Your task to perform on an android device: Search for seafood restaurants on Google Maps Image 0: 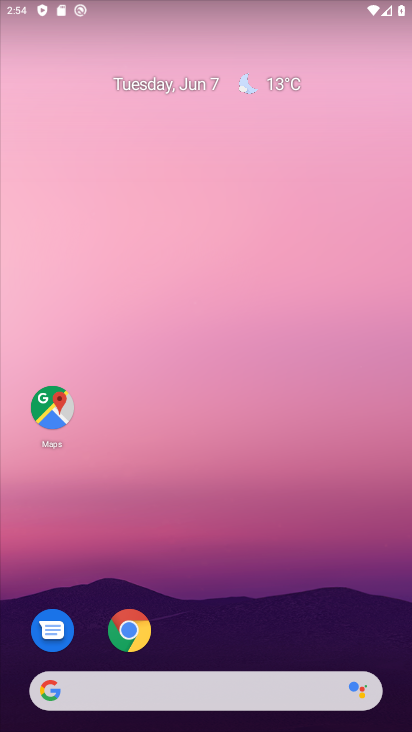
Step 0: click (63, 405)
Your task to perform on an android device: Search for seafood restaurants on Google Maps Image 1: 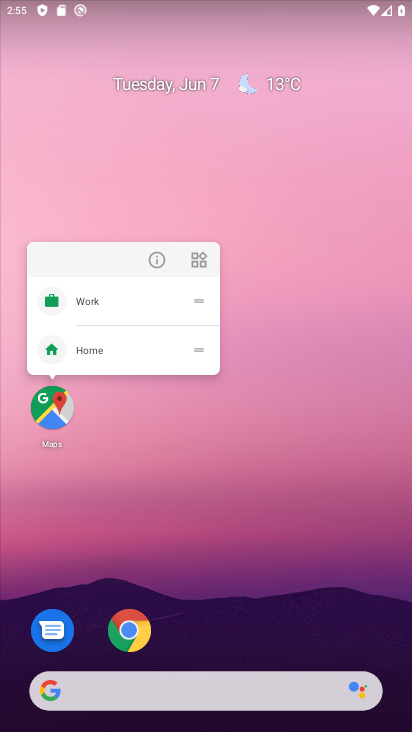
Step 1: click (58, 411)
Your task to perform on an android device: Search for seafood restaurants on Google Maps Image 2: 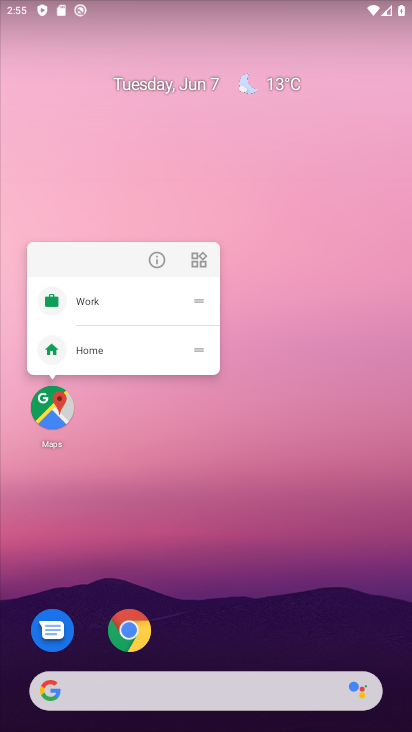
Step 2: click (55, 413)
Your task to perform on an android device: Search for seafood restaurants on Google Maps Image 3: 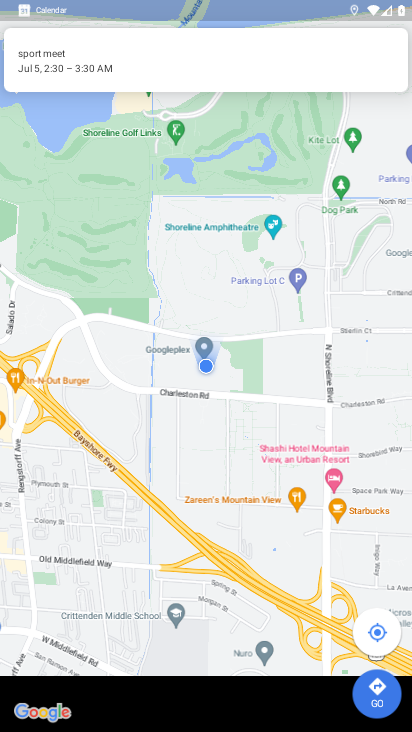
Step 3: drag from (169, 91) to (233, 0)
Your task to perform on an android device: Search for seafood restaurants on Google Maps Image 4: 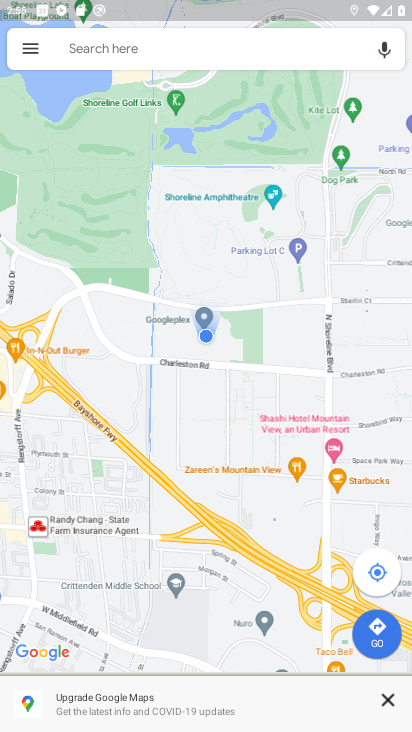
Step 4: click (178, 60)
Your task to perform on an android device: Search for seafood restaurants on Google Maps Image 5: 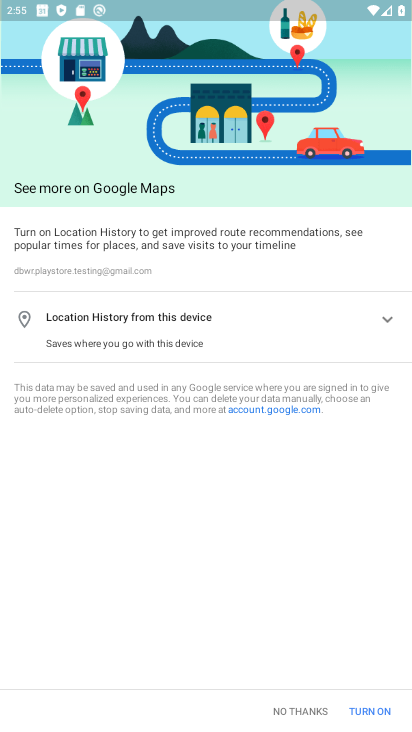
Step 5: click (308, 718)
Your task to perform on an android device: Search for seafood restaurants on Google Maps Image 6: 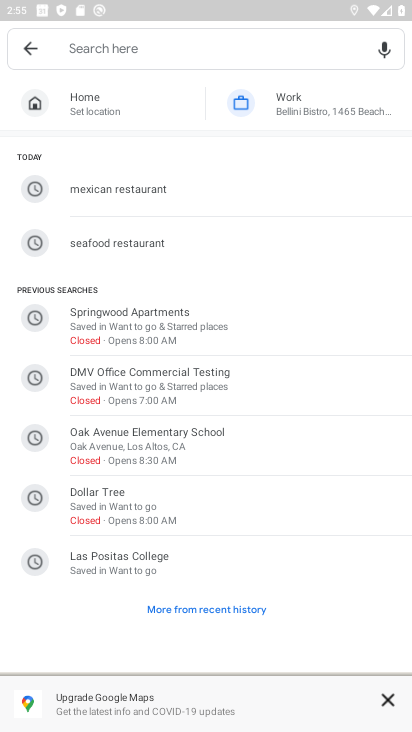
Step 6: click (382, 697)
Your task to perform on an android device: Search for seafood restaurants on Google Maps Image 7: 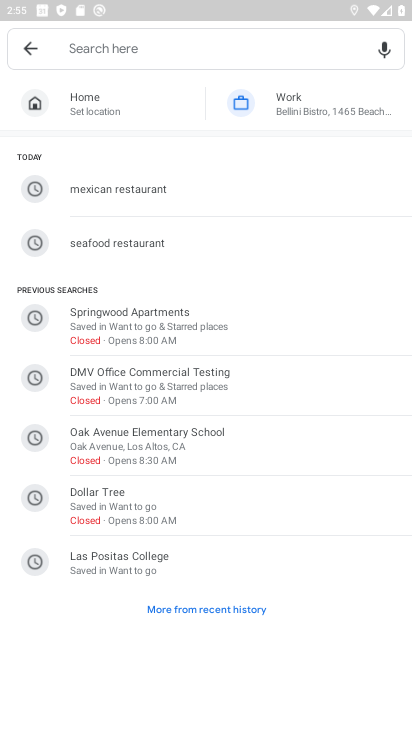
Step 7: type "seafood restaurants"
Your task to perform on an android device: Search for seafood restaurants on Google Maps Image 8: 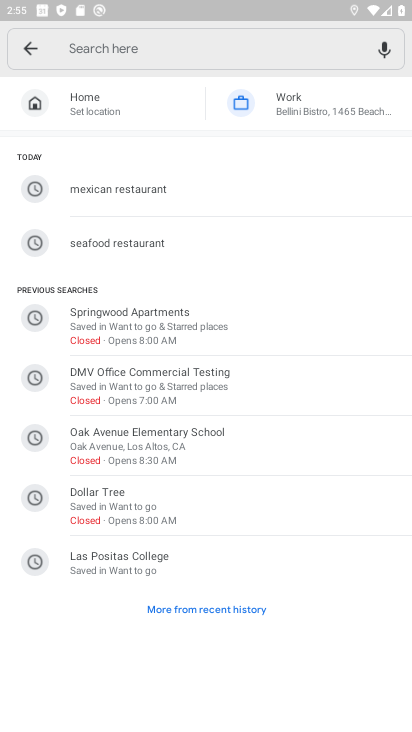
Step 8: click (195, 49)
Your task to perform on an android device: Search for seafood restaurants on Google Maps Image 9: 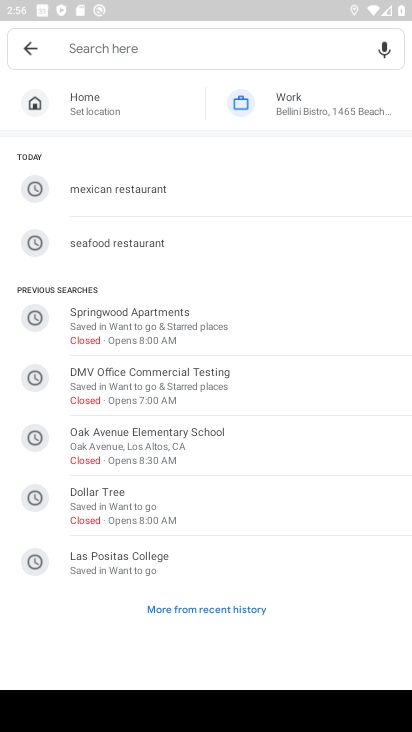
Step 9: type "seafood restaurants"
Your task to perform on an android device: Search for seafood restaurants on Google Maps Image 10: 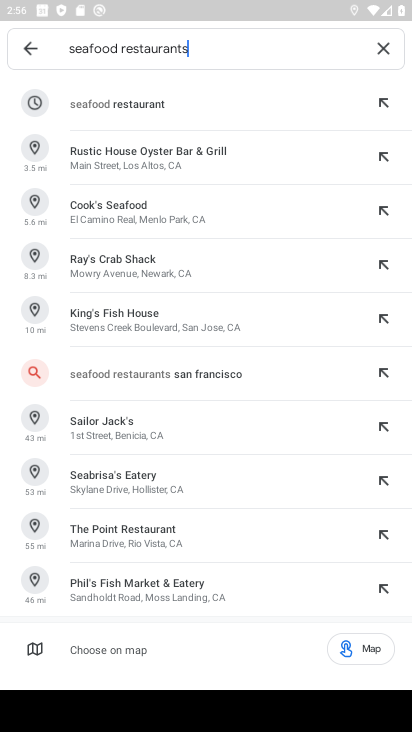
Step 10: click (198, 118)
Your task to perform on an android device: Search for seafood restaurants on Google Maps Image 11: 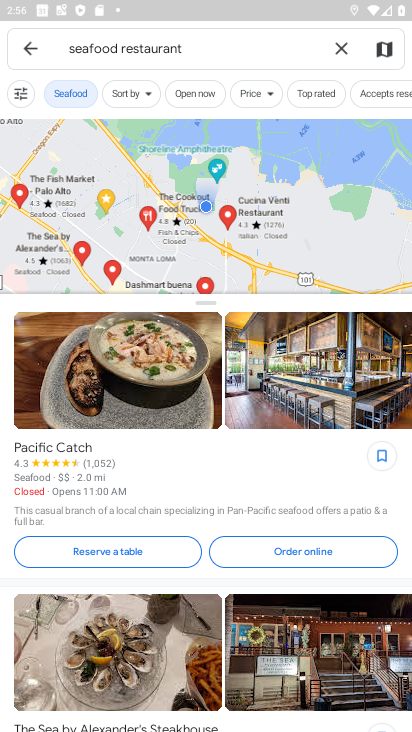
Step 11: task complete